Your task to perform on an android device: What's the US dollar exchange rateagainst the Swiss Franc? Image 0: 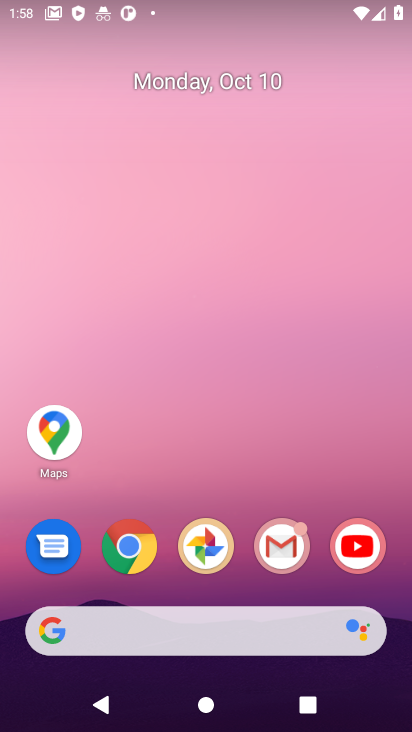
Step 0: click (138, 536)
Your task to perform on an android device: What's the US dollar exchange rateagainst the Swiss Franc? Image 1: 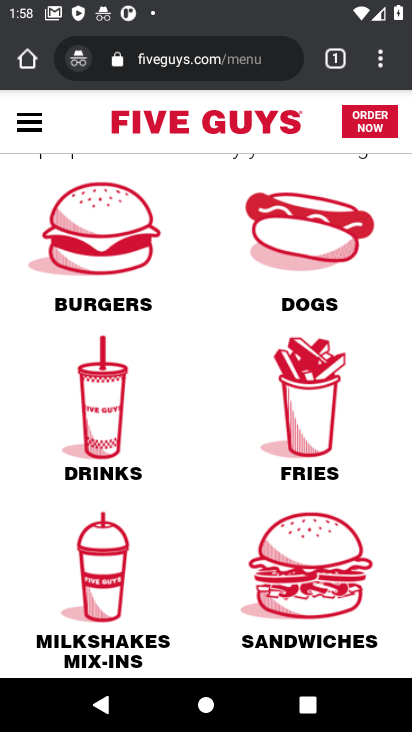
Step 1: click (172, 54)
Your task to perform on an android device: What's the US dollar exchange rateagainst the Swiss Franc? Image 2: 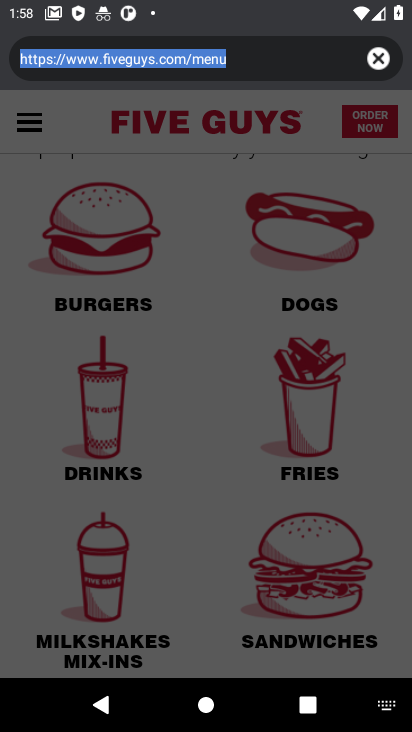
Step 2: click (381, 63)
Your task to perform on an android device: What's the US dollar exchange rateagainst the Swiss Franc? Image 3: 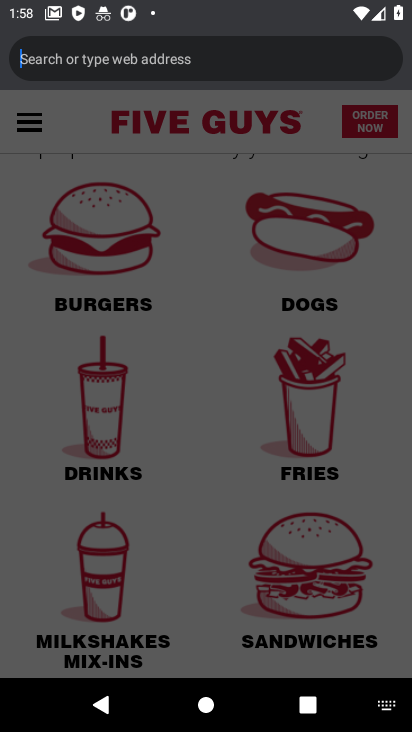
Step 3: type "What's the US dollar exchange rateagainst the Swiss Franc?"
Your task to perform on an android device: What's the US dollar exchange rateagainst the Swiss Franc? Image 4: 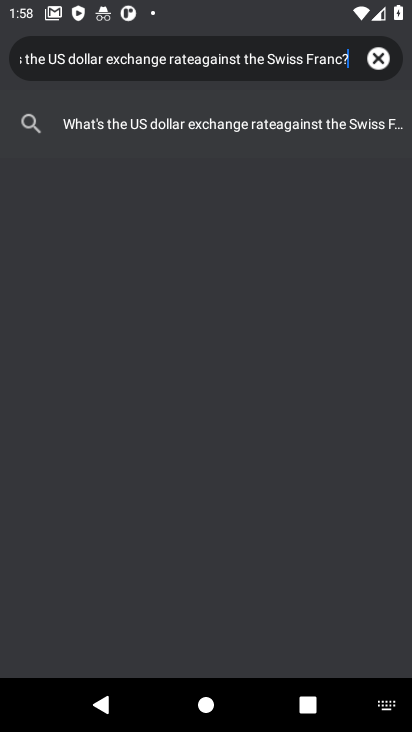
Step 4: click (320, 123)
Your task to perform on an android device: What's the US dollar exchange rateagainst the Swiss Franc? Image 5: 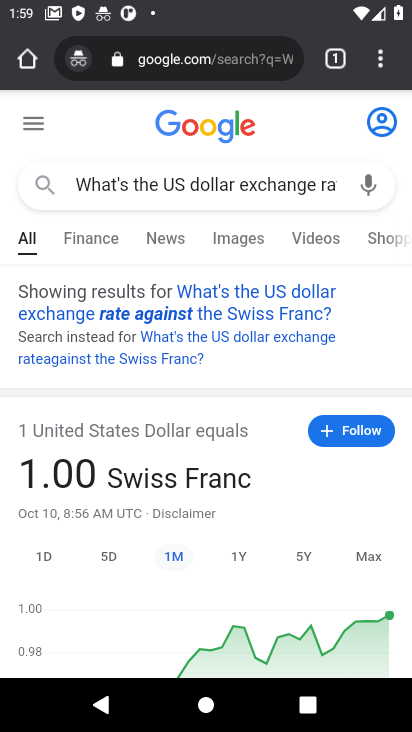
Step 5: task complete